Your task to perform on an android device: read, delete, or share a saved page in the chrome app Image 0: 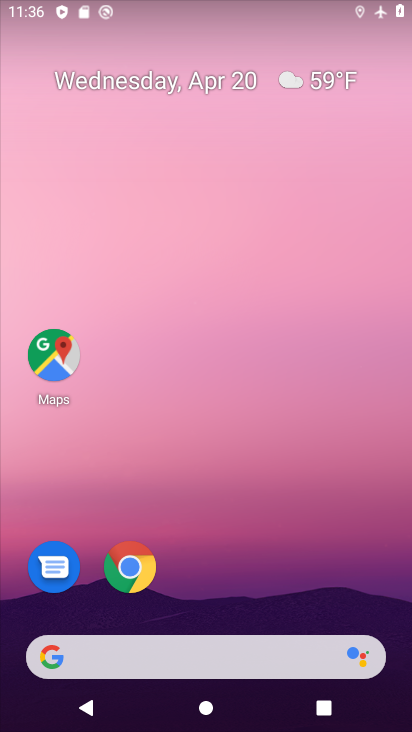
Step 0: click (120, 570)
Your task to perform on an android device: read, delete, or share a saved page in the chrome app Image 1: 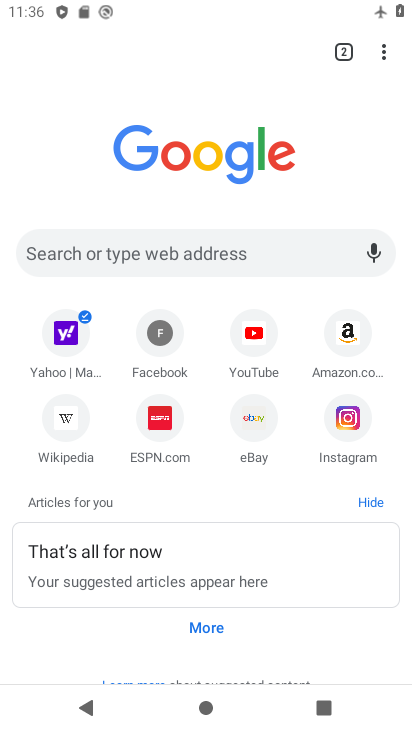
Step 1: click (384, 45)
Your task to perform on an android device: read, delete, or share a saved page in the chrome app Image 2: 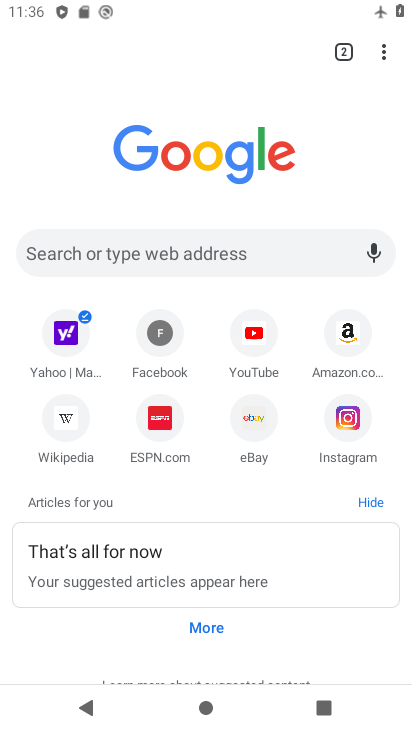
Step 2: click (384, 46)
Your task to perform on an android device: read, delete, or share a saved page in the chrome app Image 3: 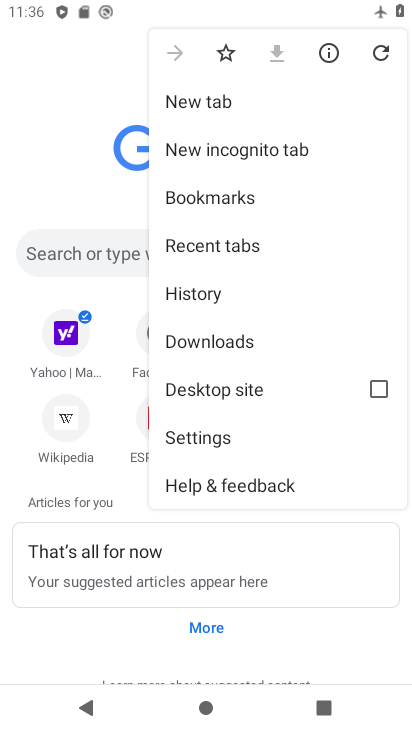
Step 3: click (171, 344)
Your task to perform on an android device: read, delete, or share a saved page in the chrome app Image 4: 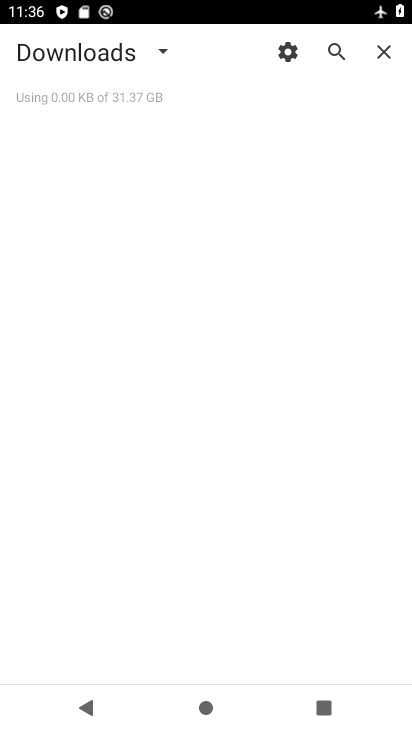
Step 4: click (79, 60)
Your task to perform on an android device: read, delete, or share a saved page in the chrome app Image 5: 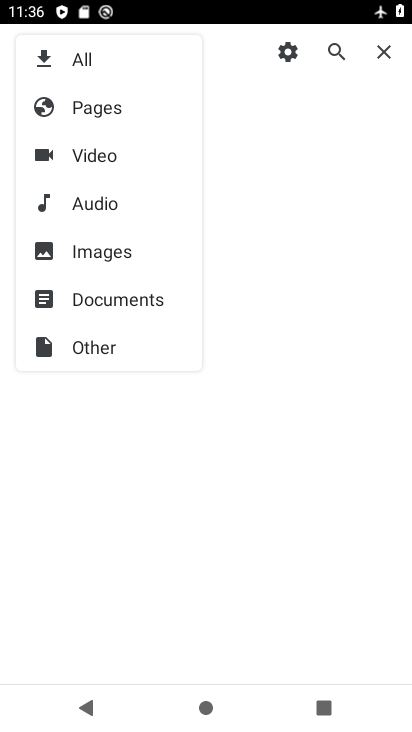
Step 5: click (106, 98)
Your task to perform on an android device: read, delete, or share a saved page in the chrome app Image 6: 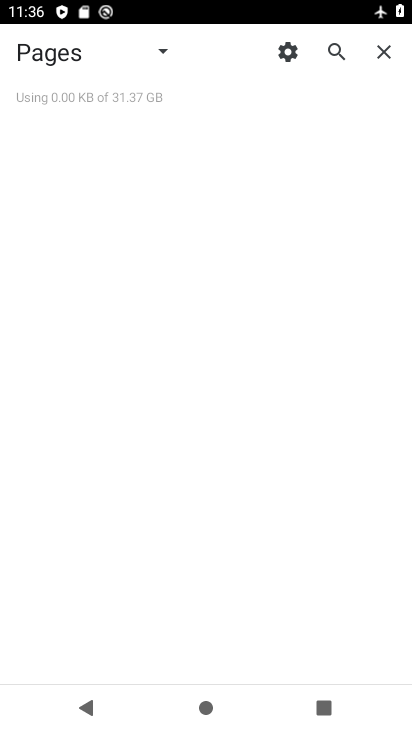
Step 6: task complete